Your task to perform on an android device: Go to Amazon Image 0: 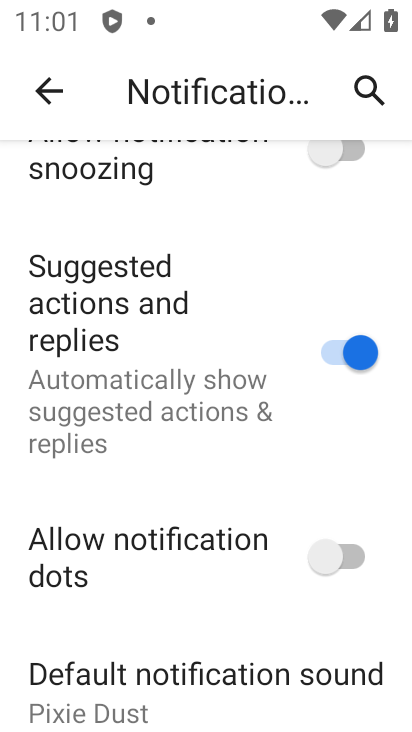
Step 0: press home button
Your task to perform on an android device: Go to Amazon Image 1: 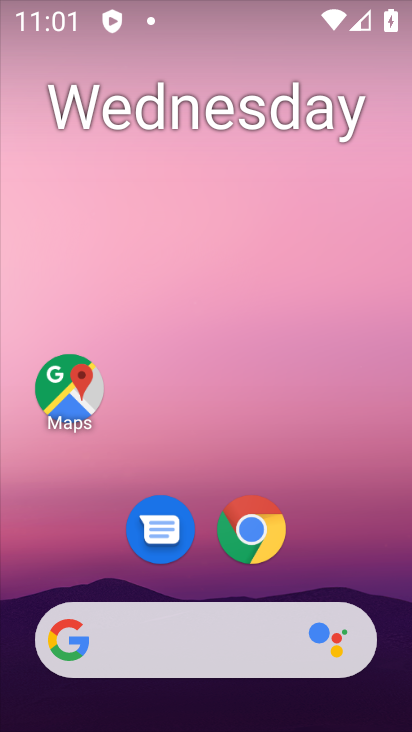
Step 1: drag from (391, 574) to (383, 202)
Your task to perform on an android device: Go to Amazon Image 2: 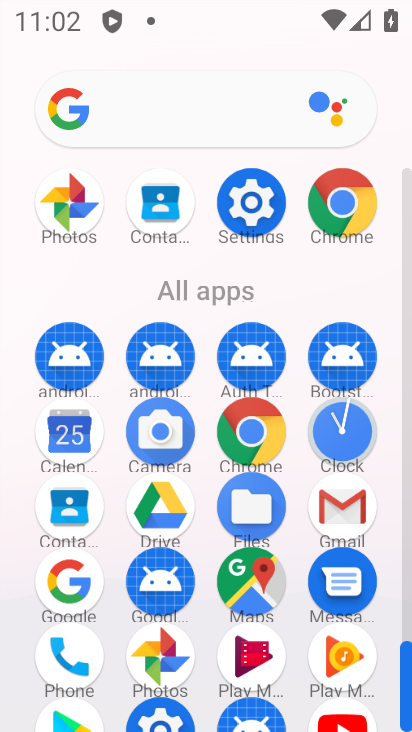
Step 2: click (271, 432)
Your task to perform on an android device: Go to Amazon Image 3: 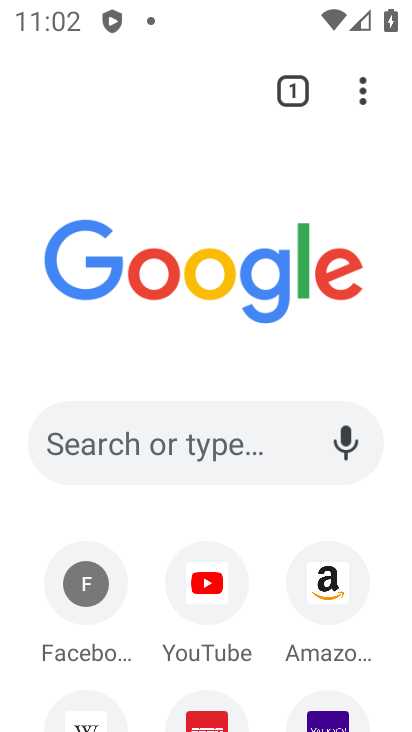
Step 3: click (236, 445)
Your task to perform on an android device: Go to Amazon Image 4: 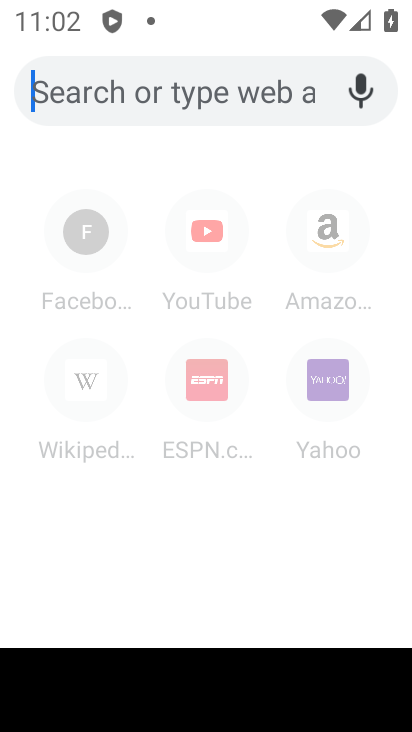
Step 4: type "Amazon"
Your task to perform on an android device: Go to Amazon Image 5: 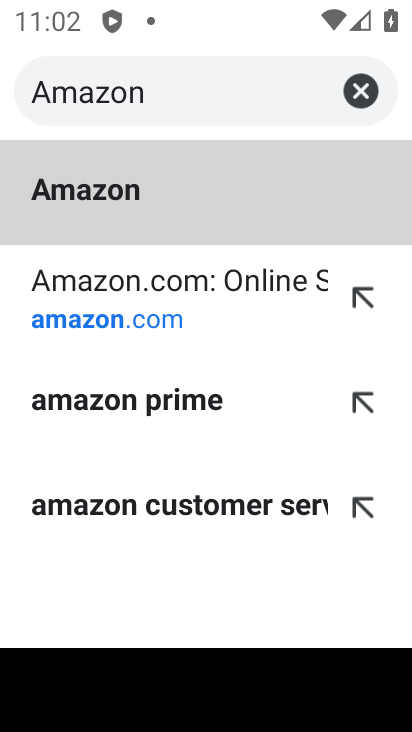
Step 5: click (229, 224)
Your task to perform on an android device: Go to Amazon Image 6: 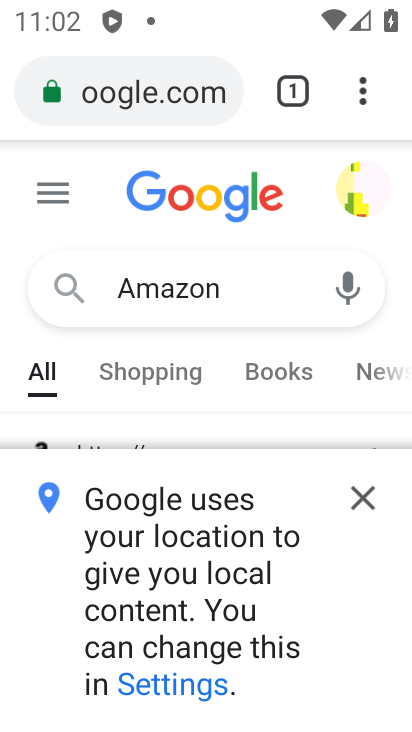
Step 6: task complete